Your task to perform on an android device: turn vacation reply on in the gmail app Image 0: 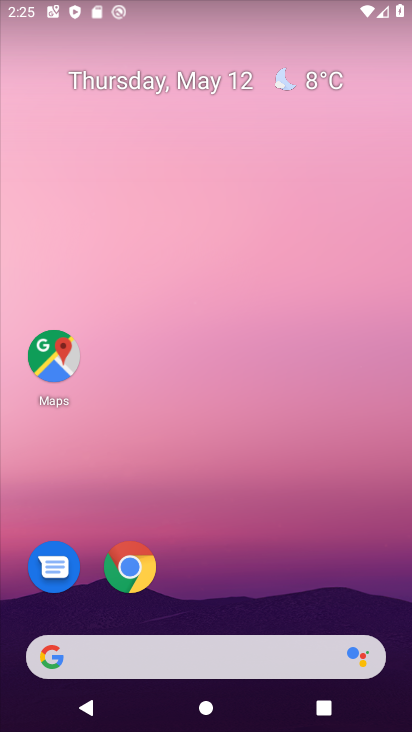
Step 0: drag from (229, 592) to (216, 354)
Your task to perform on an android device: turn vacation reply on in the gmail app Image 1: 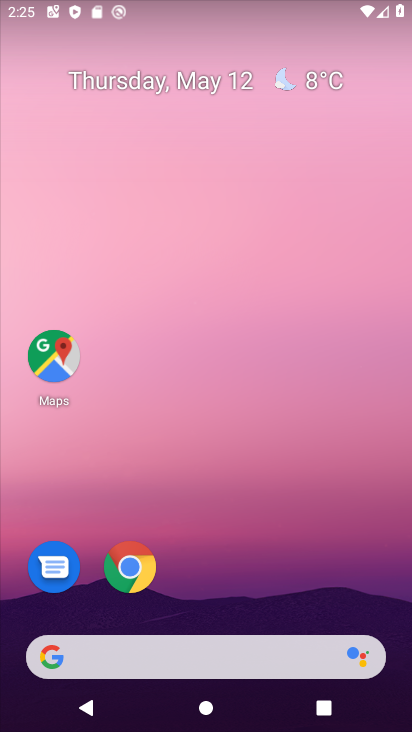
Step 1: drag from (196, 601) to (203, 239)
Your task to perform on an android device: turn vacation reply on in the gmail app Image 2: 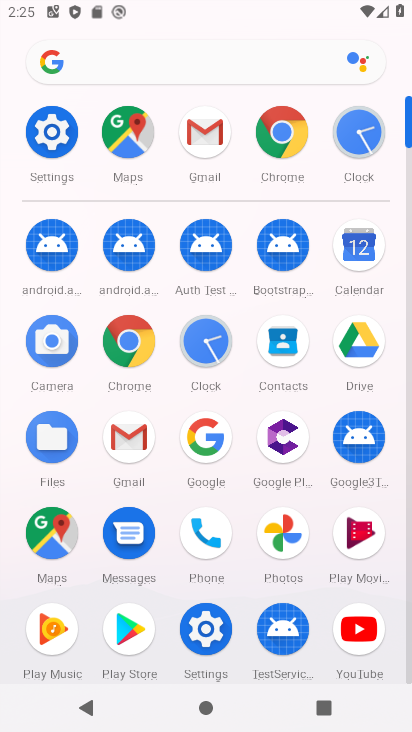
Step 2: click (143, 436)
Your task to perform on an android device: turn vacation reply on in the gmail app Image 3: 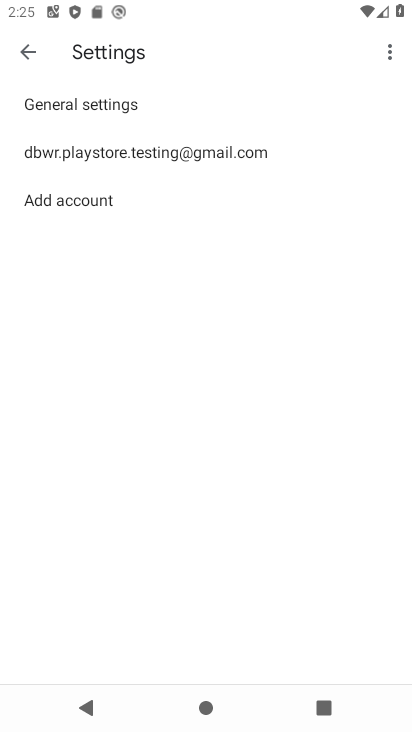
Step 3: click (153, 150)
Your task to perform on an android device: turn vacation reply on in the gmail app Image 4: 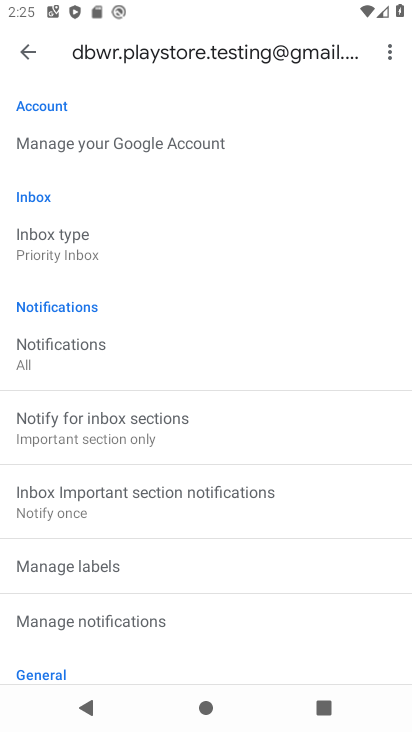
Step 4: drag from (138, 545) to (181, 143)
Your task to perform on an android device: turn vacation reply on in the gmail app Image 5: 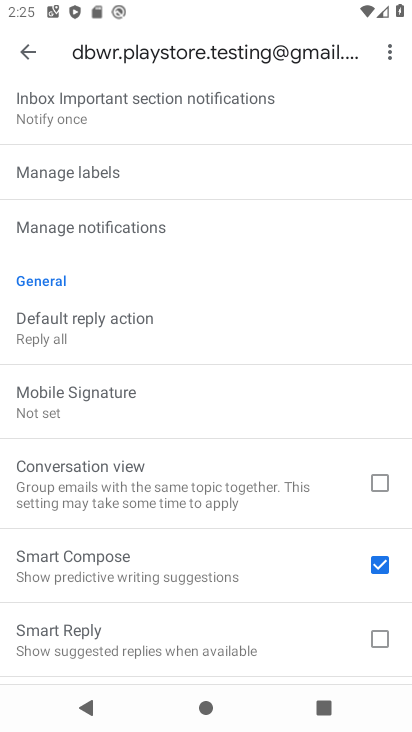
Step 5: drag from (149, 511) to (192, 325)
Your task to perform on an android device: turn vacation reply on in the gmail app Image 6: 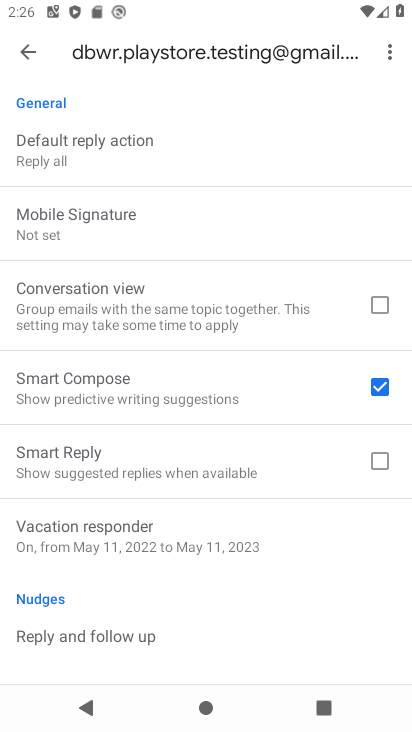
Step 6: click (123, 540)
Your task to perform on an android device: turn vacation reply on in the gmail app Image 7: 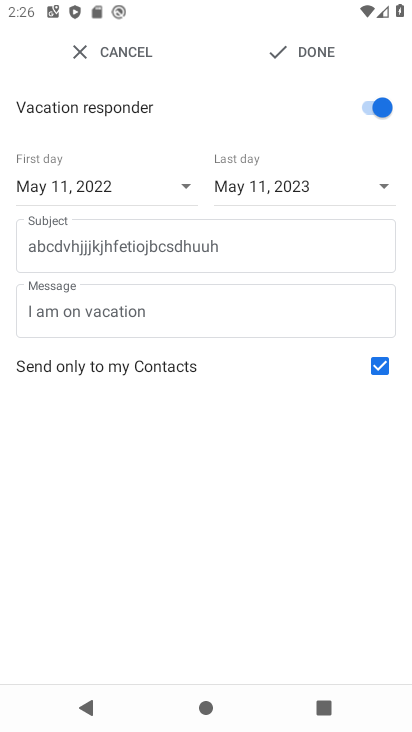
Step 7: task complete